Your task to perform on an android device: Open settings on Google Maps Image 0: 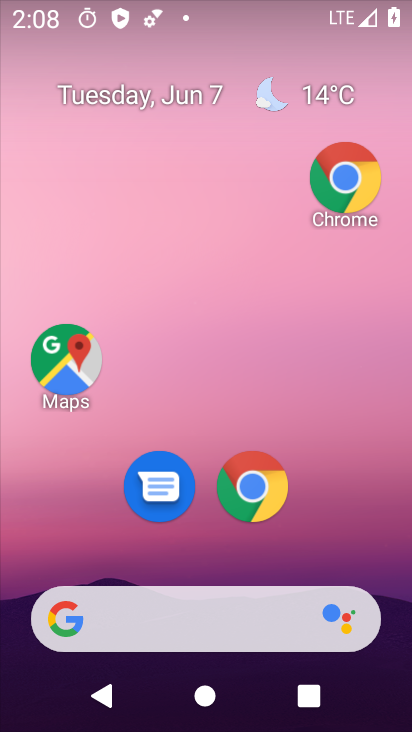
Step 0: drag from (103, 548) to (200, 161)
Your task to perform on an android device: Open settings on Google Maps Image 1: 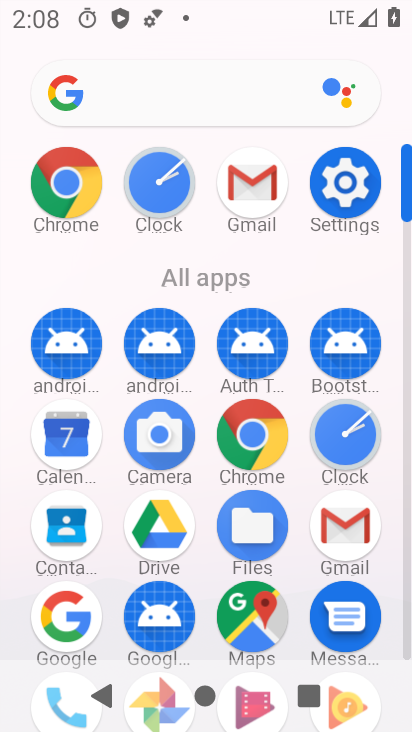
Step 1: click (263, 631)
Your task to perform on an android device: Open settings on Google Maps Image 2: 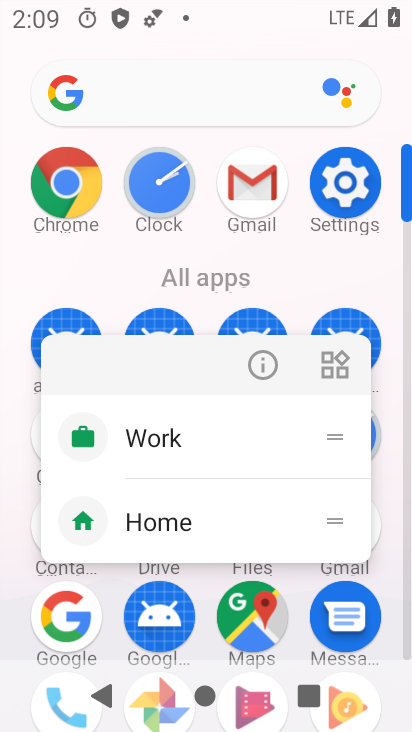
Step 2: click (263, 627)
Your task to perform on an android device: Open settings on Google Maps Image 3: 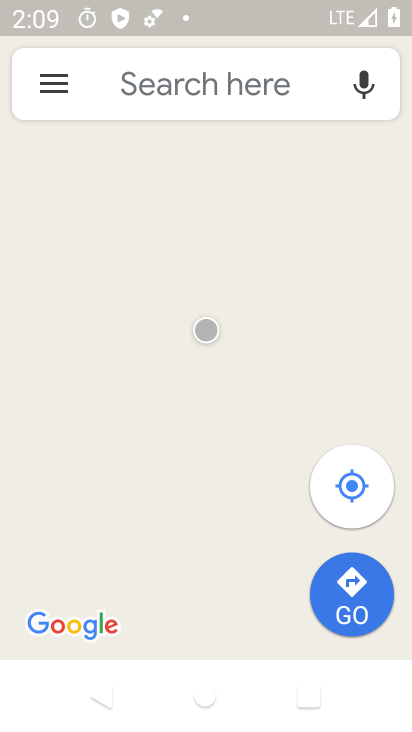
Step 3: click (68, 77)
Your task to perform on an android device: Open settings on Google Maps Image 4: 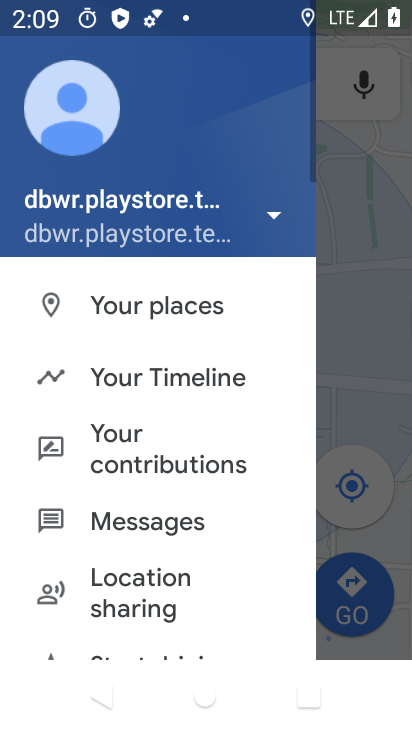
Step 4: drag from (110, 606) to (231, 96)
Your task to perform on an android device: Open settings on Google Maps Image 5: 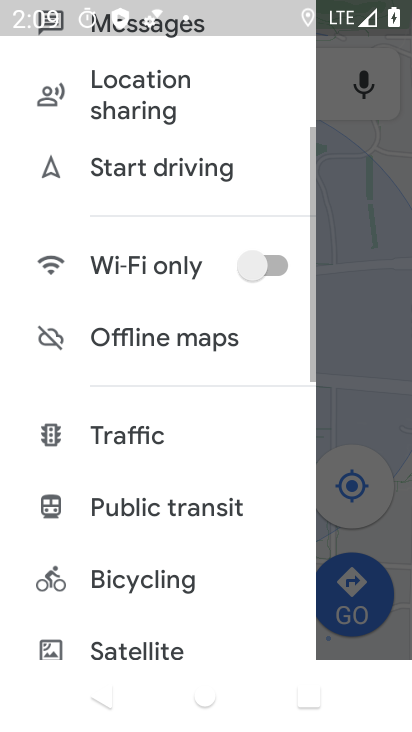
Step 5: drag from (138, 604) to (228, 175)
Your task to perform on an android device: Open settings on Google Maps Image 6: 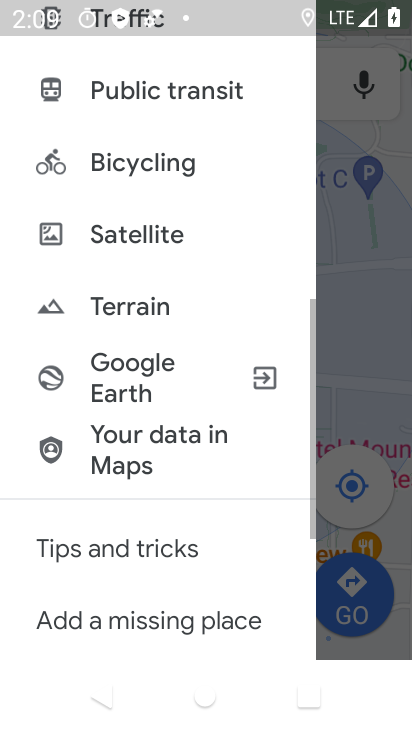
Step 6: drag from (166, 591) to (248, 225)
Your task to perform on an android device: Open settings on Google Maps Image 7: 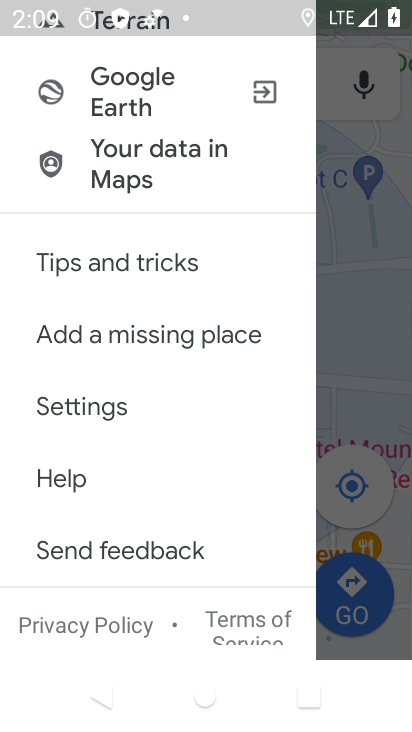
Step 7: click (113, 422)
Your task to perform on an android device: Open settings on Google Maps Image 8: 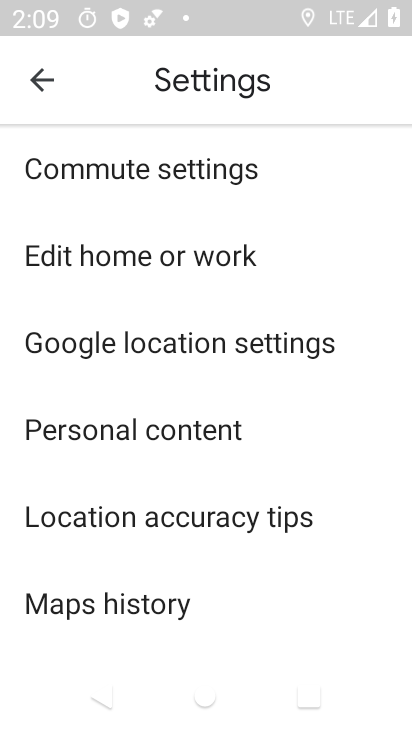
Step 8: task complete